Your task to perform on an android device: Go to CNN.com Image 0: 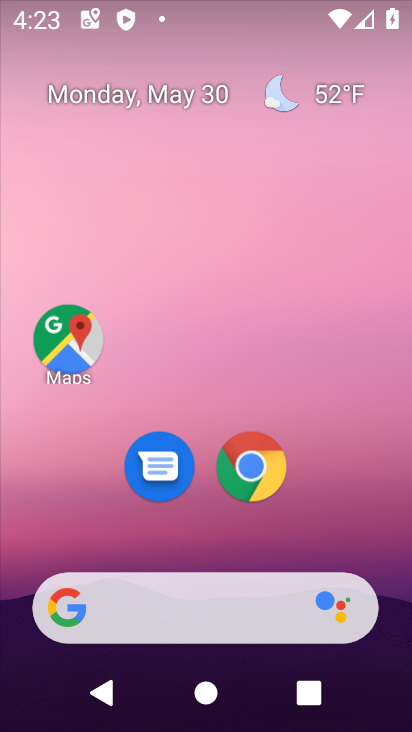
Step 0: click (243, 460)
Your task to perform on an android device: Go to CNN.com Image 1: 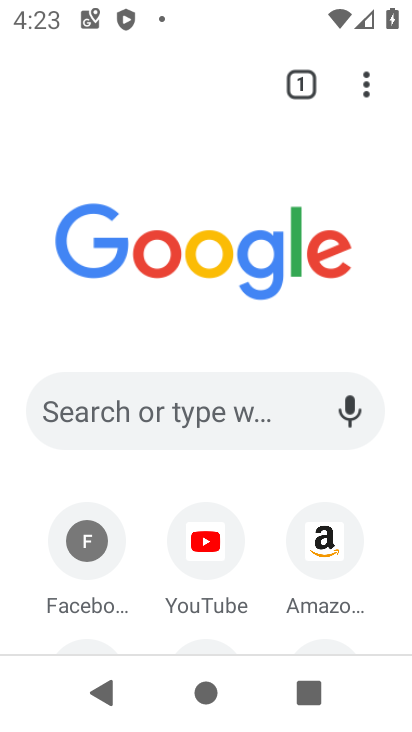
Step 1: click (230, 401)
Your task to perform on an android device: Go to CNN.com Image 2: 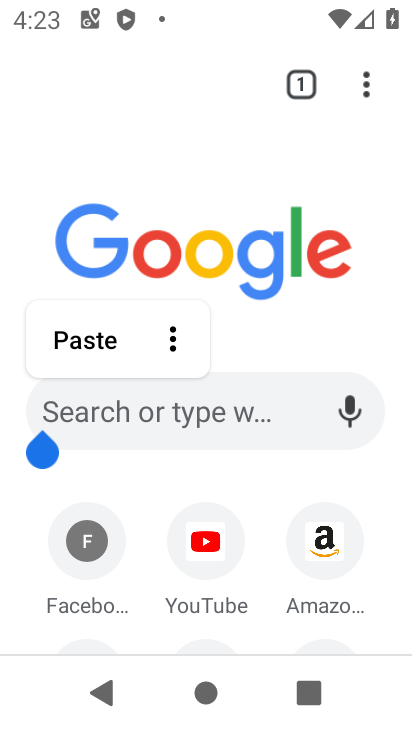
Step 2: click (222, 419)
Your task to perform on an android device: Go to CNN.com Image 3: 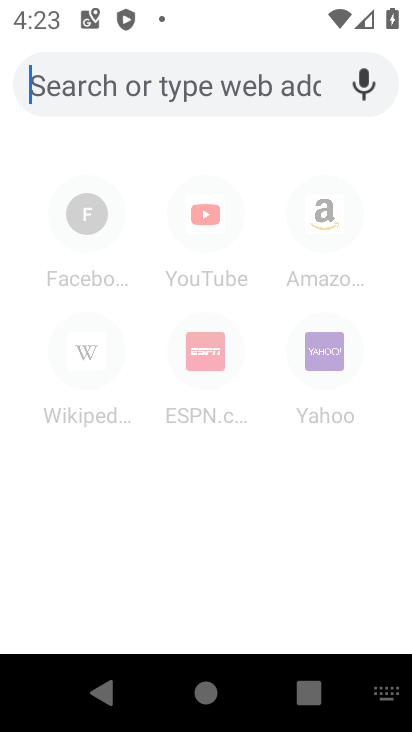
Step 3: type "cnn.com"
Your task to perform on an android device: Go to CNN.com Image 4: 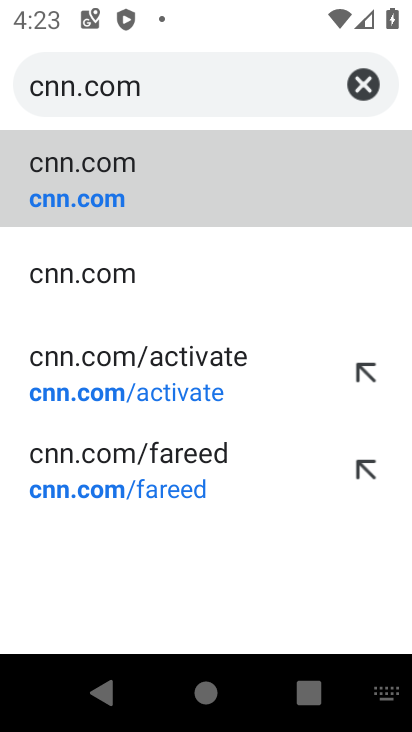
Step 4: click (98, 201)
Your task to perform on an android device: Go to CNN.com Image 5: 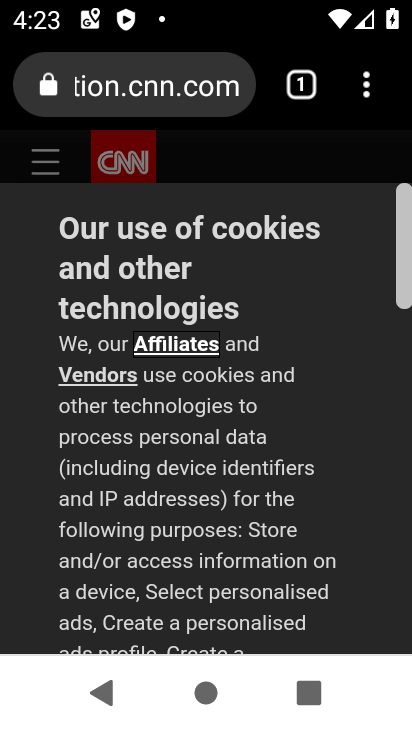
Step 5: task complete